Your task to perform on an android device: open a bookmark in the chrome app Image 0: 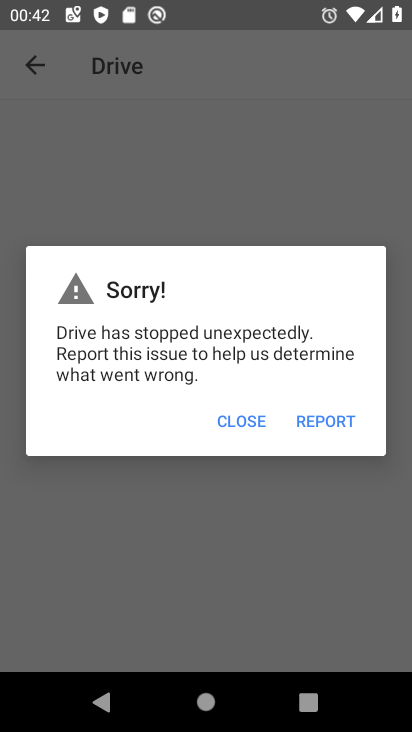
Step 0: press home button
Your task to perform on an android device: open a bookmark in the chrome app Image 1: 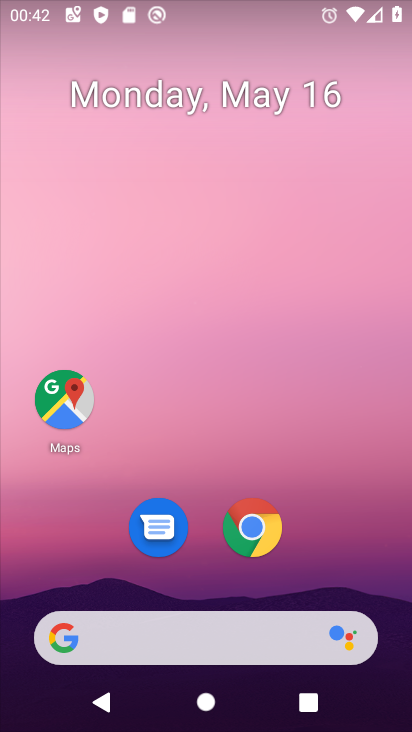
Step 1: click (269, 544)
Your task to perform on an android device: open a bookmark in the chrome app Image 2: 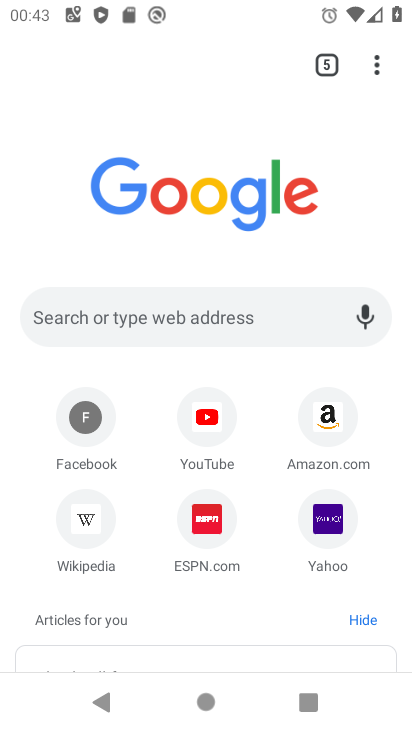
Step 2: click (377, 83)
Your task to perform on an android device: open a bookmark in the chrome app Image 3: 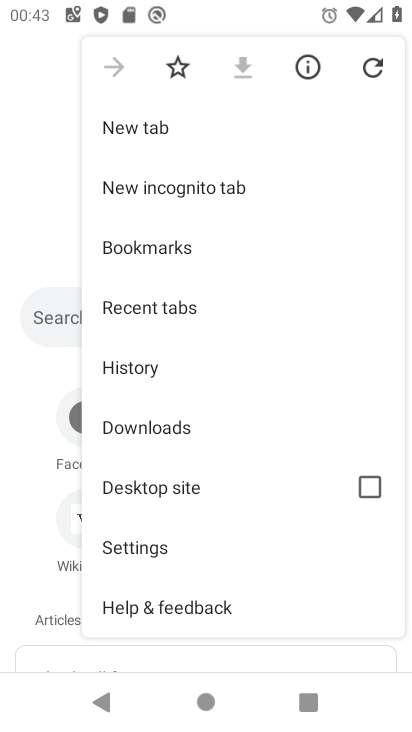
Step 3: click (228, 254)
Your task to perform on an android device: open a bookmark in the chrome app Image 4: 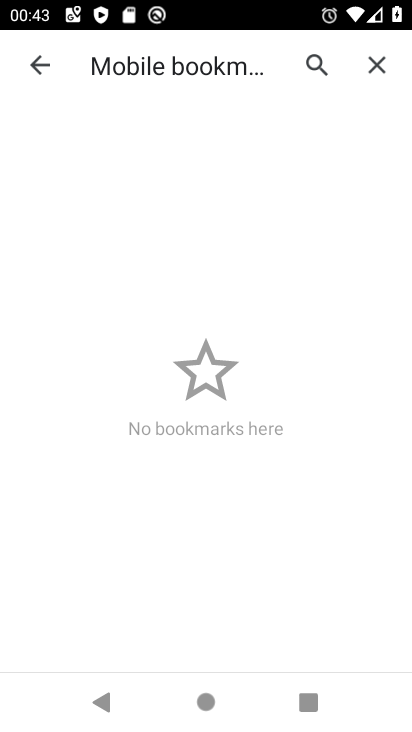
Step 4: task complete